Your task to perform on an android device: set the stopwatch Image 0: 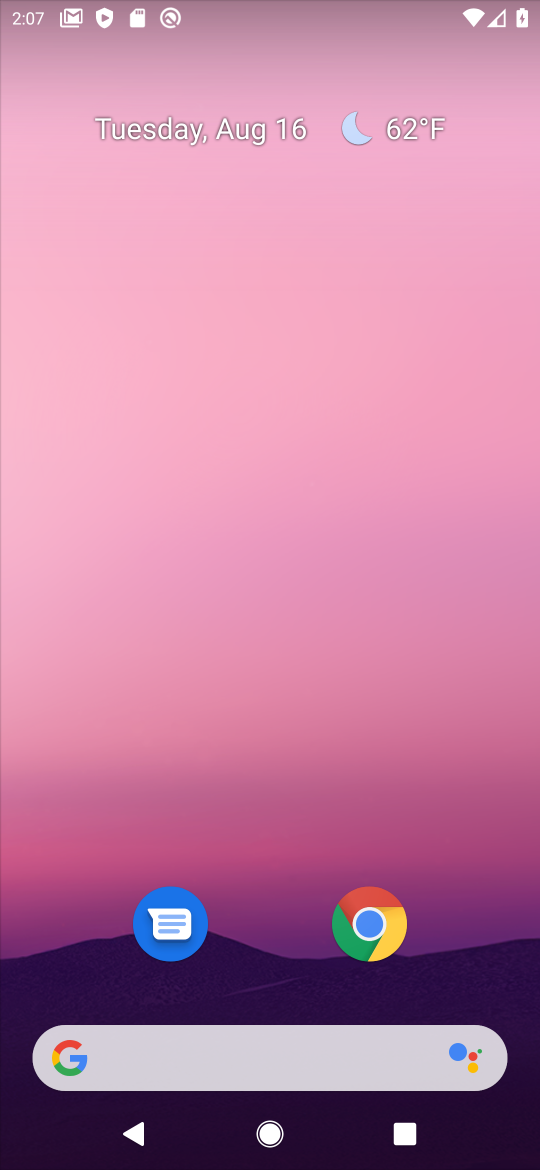
Step 0: drag from (507, 951) to (454, 105)
Your task to perform on an android device: set the stopwatch Image 1: 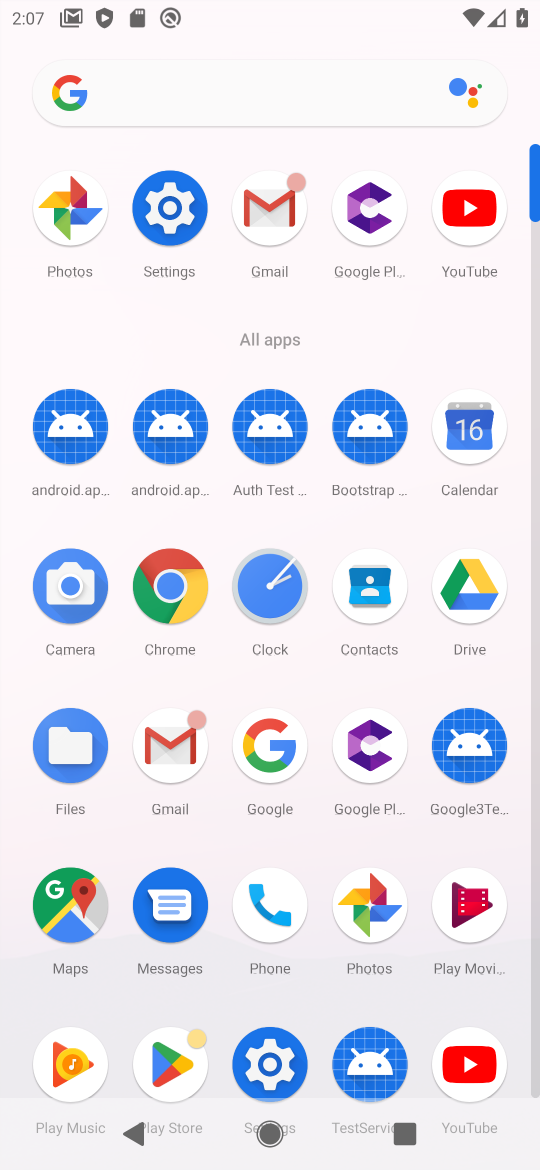
Step 1: click (267, 592)
Your task to perform on an android device: set the stopwatch Image 2: 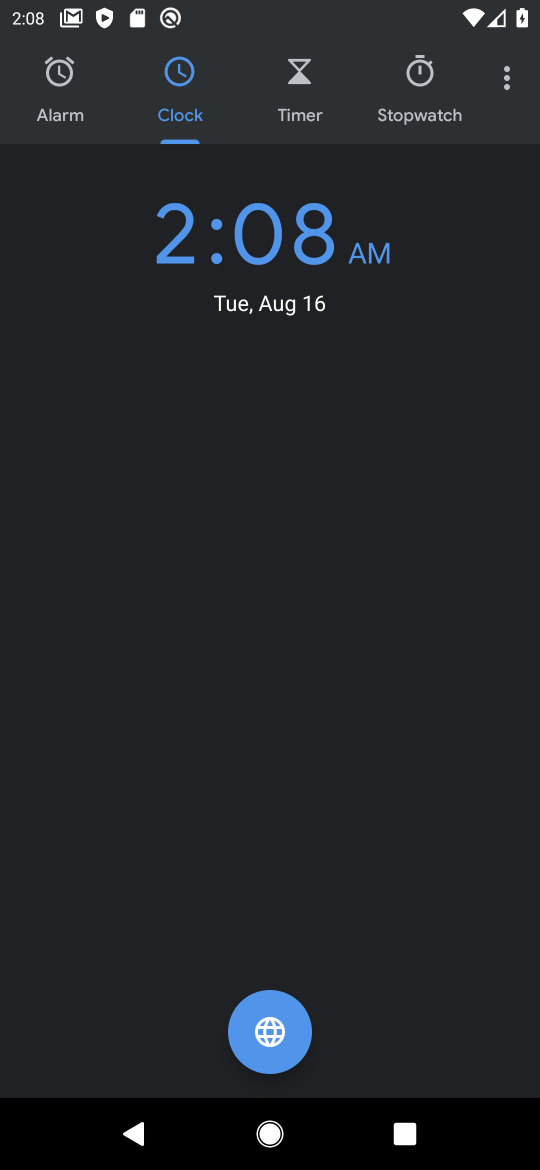
Step 2: click (416, 56)
Your task to perform on an android device: set the stopwatch Image 3: 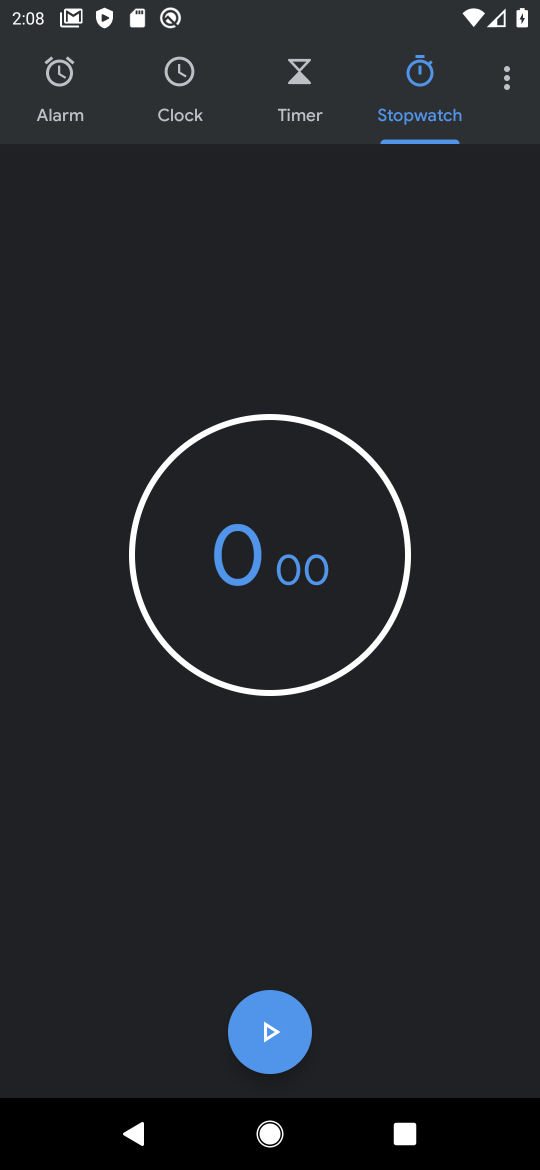
Step 3: task complete